Your task to perform on an android device: What's on the menu at Chick-fil-A? Image 0: 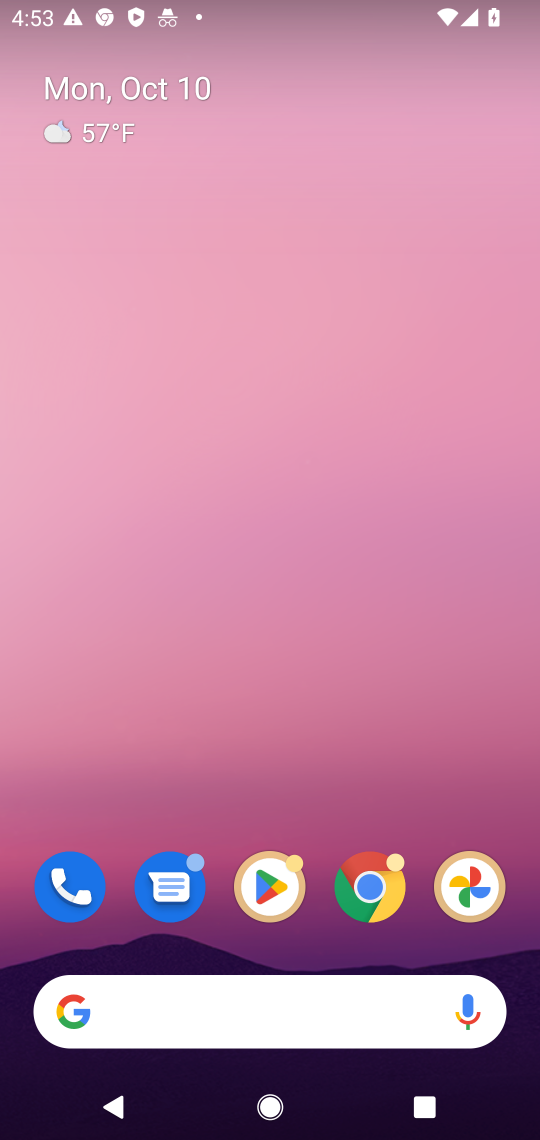
Step 0: click (379, 895)
Your task to perform on an android device: What's on the menu at Chick-fil-A? Image 1: 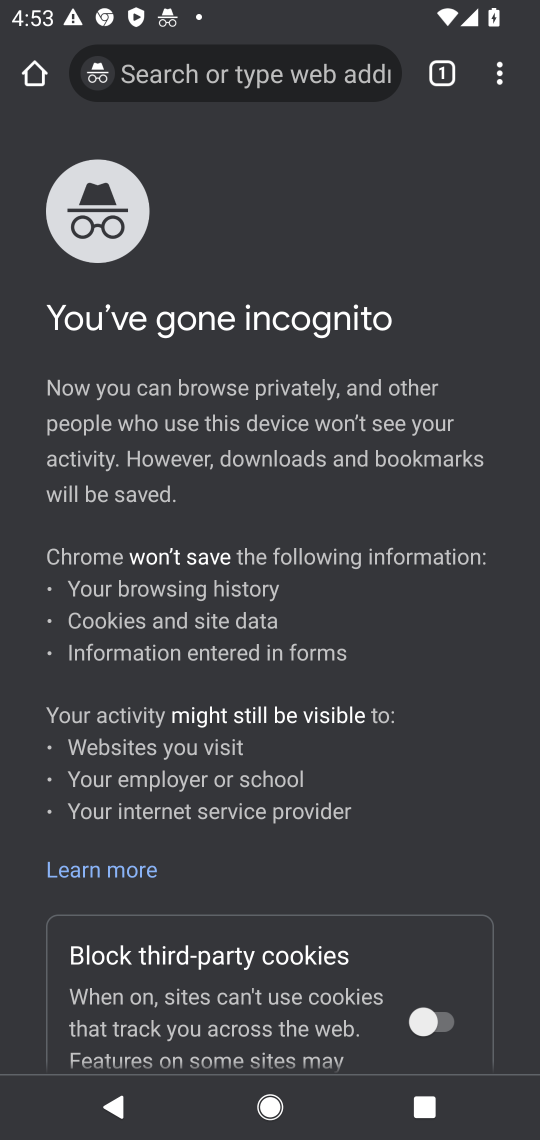
Step 1: click (222, 59)
Your task to perform on an android device: What's on the menu at Chick-fil-A? Image 2: 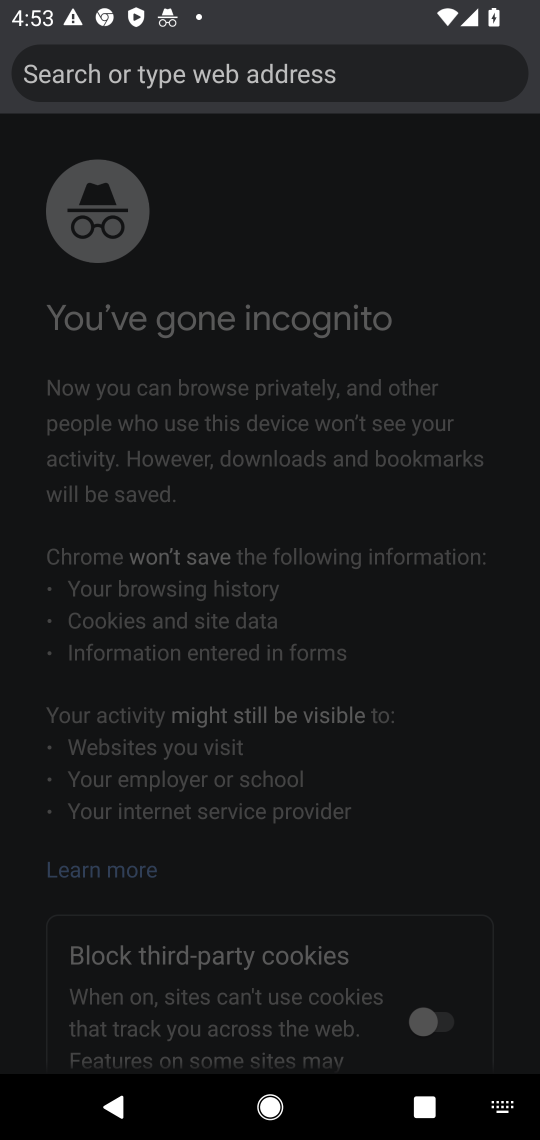
Step 2: type "What's on the menu at Chick-fil-A?"
Your task to perform on an android device: What's on the menu at Chick-fil-A? Image 3: 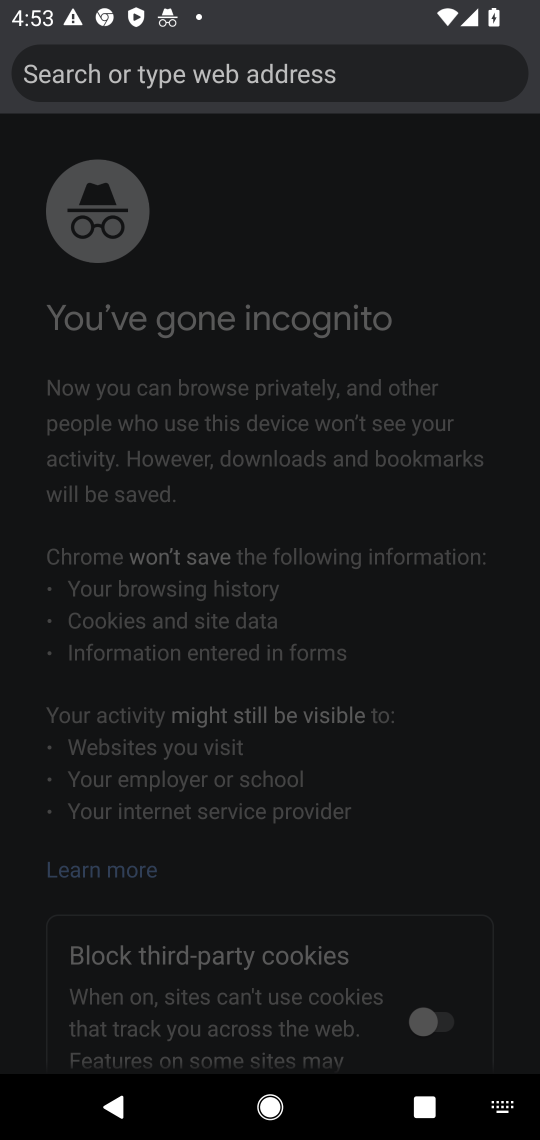
Step 3: click (264, 77)
Your task to perform on an android device: What's on the menu at Chick-fil-A? Image 4: 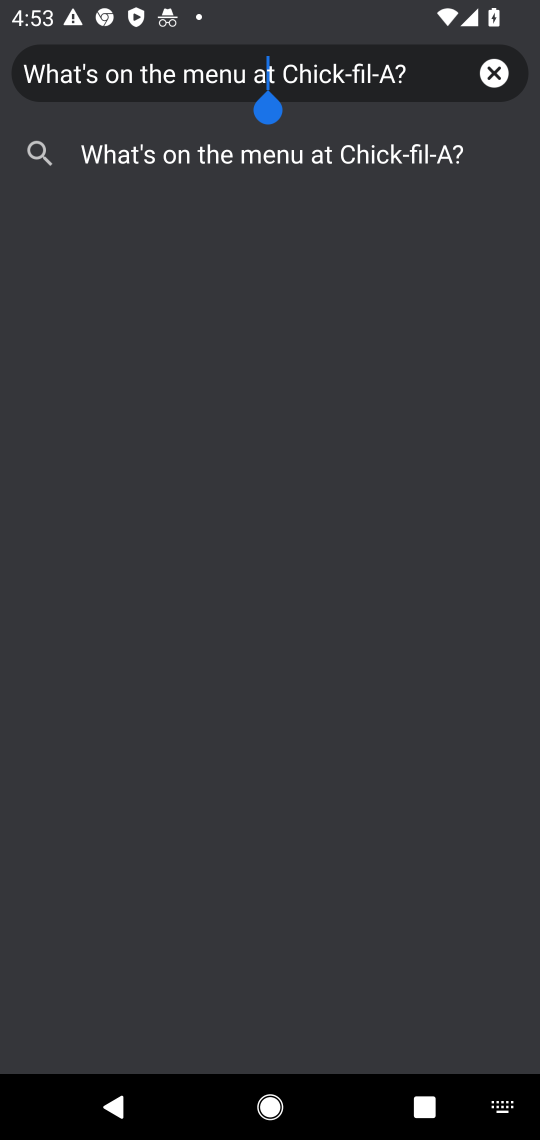
Step 4: click (361, 157)
Your task to perform on an android device: What's on the menu at Chick-fil-A? Image 5: 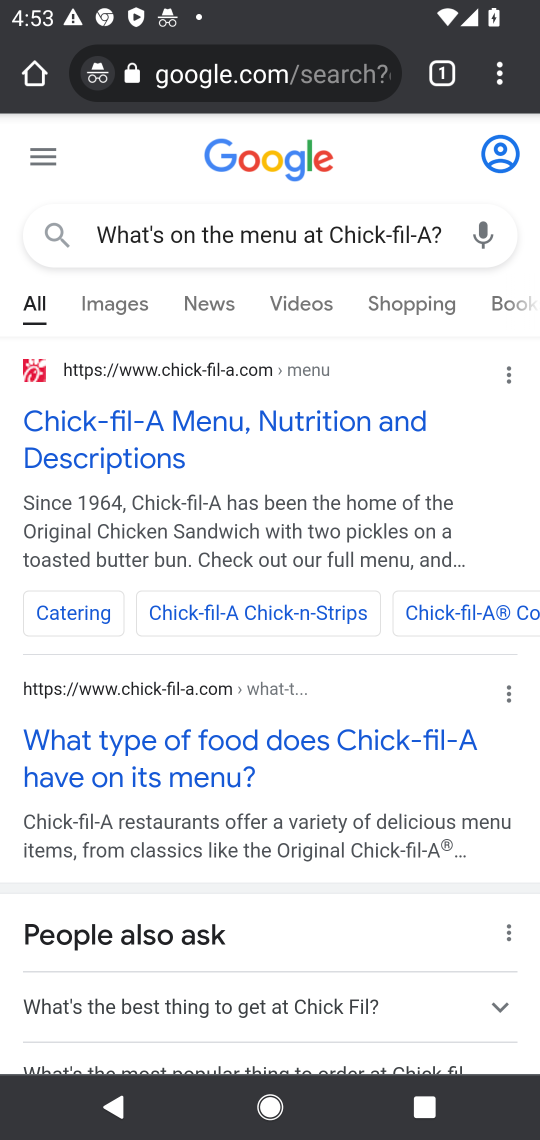
Step 5: click (367, 462)
Your task to perform on an android device: What's on the menu at Chick-fil-A? Image 6: 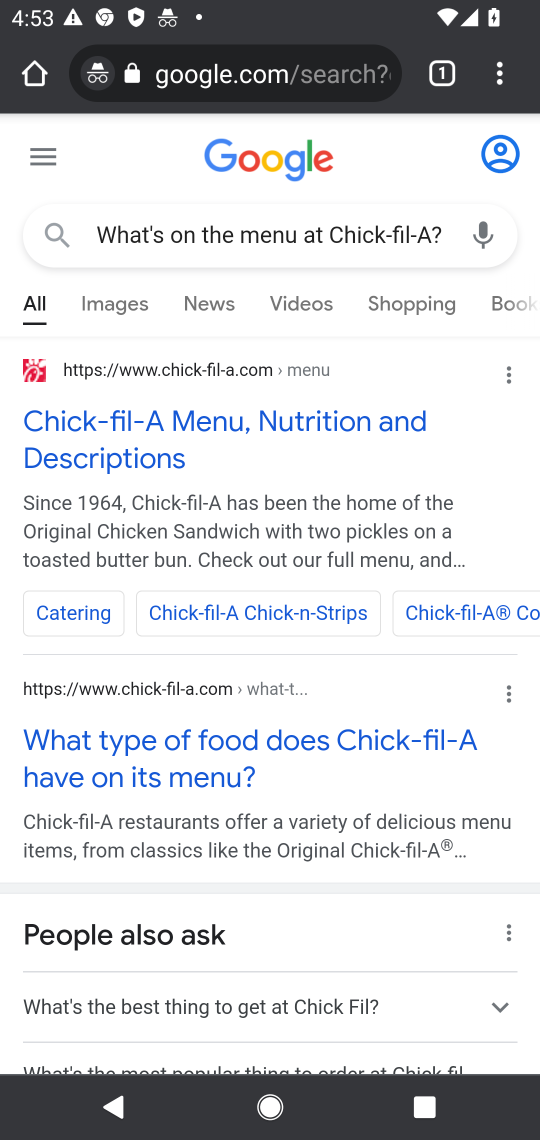
Step 6: click (367, 462)
Your task to perform on an android device: What's on the menu at Chick-fil-A? Image 7: 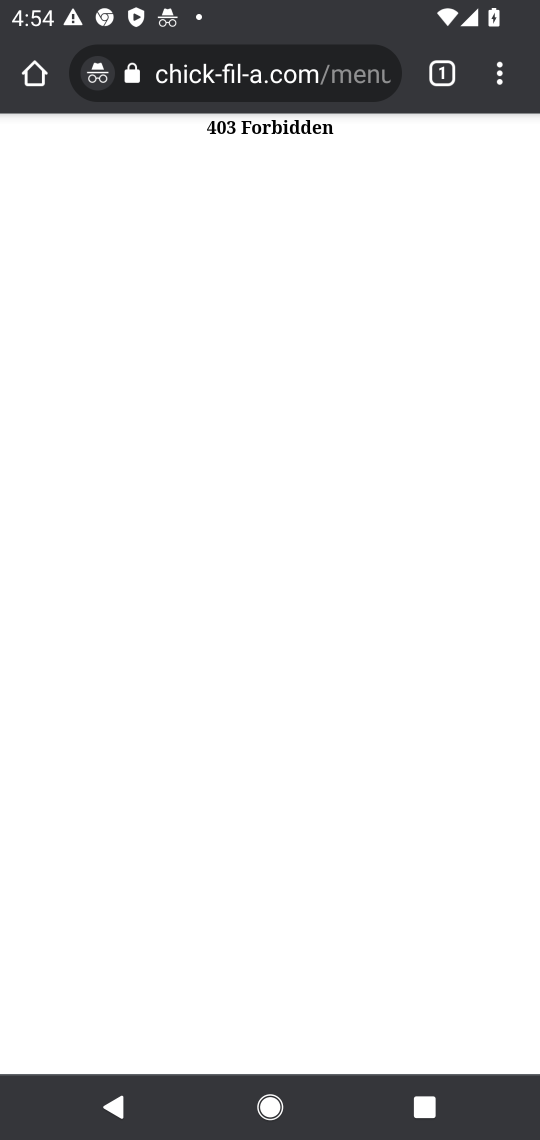
Step 7: task complete